Your task to perform on an android device: Go to Reddit.com Image 0: 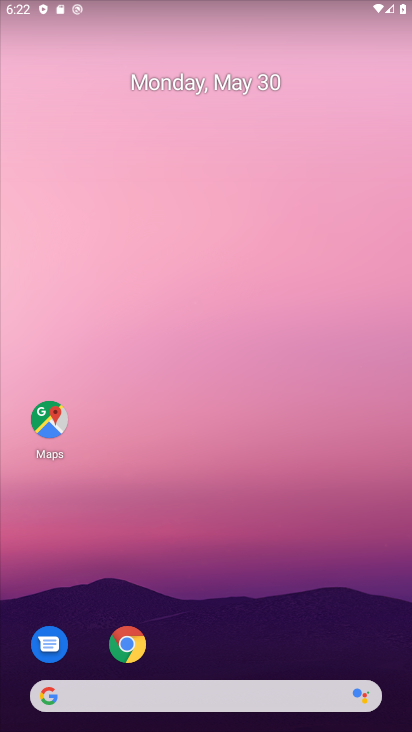
Step 0: click (123, 654)
Your task to perform on an android device: Go to Reddit.com Image 1: 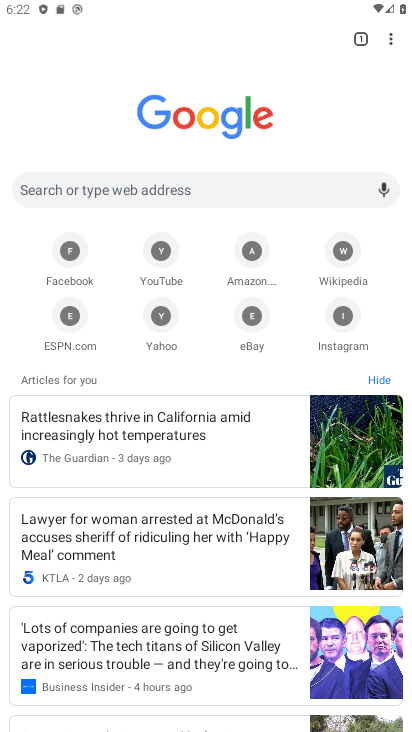
Step 1: press back button
Your task to perform on an android device: Go to Reddit.com Image 2: 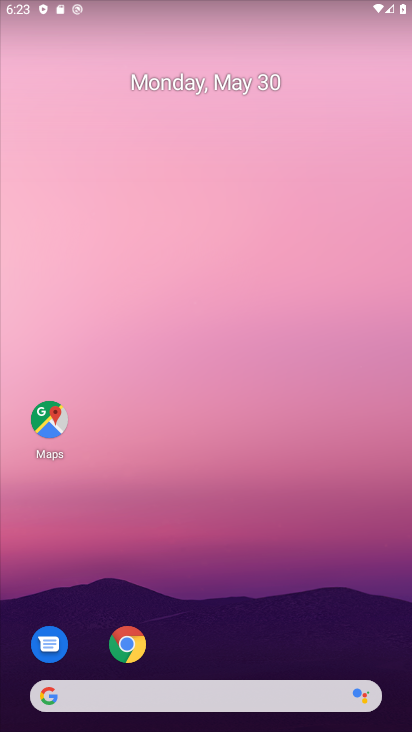
Step 2: click (122, 648)
Your task to perform on an android device: Go to Reddit.com Image 3: 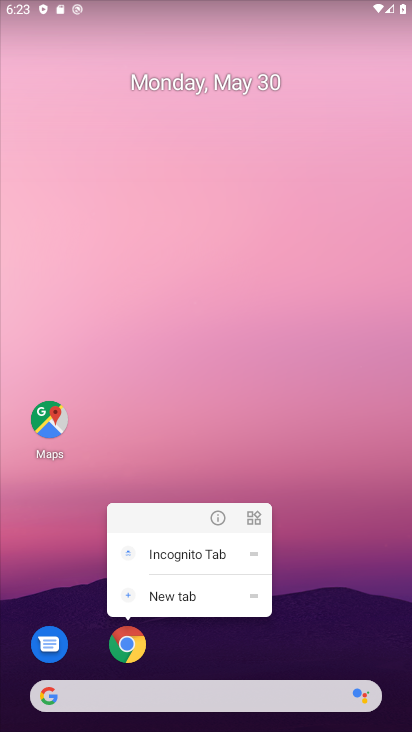
Step 3: click (122, 648)
Your task to perform on an android device: Go to Reddit.com Image 4: 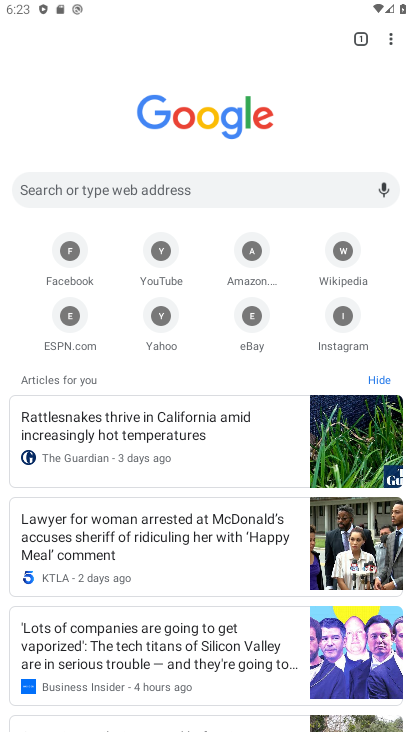
Step 4: click (168, 174)
Your task to perform on an android device: Go to Reddit.com Image 5: 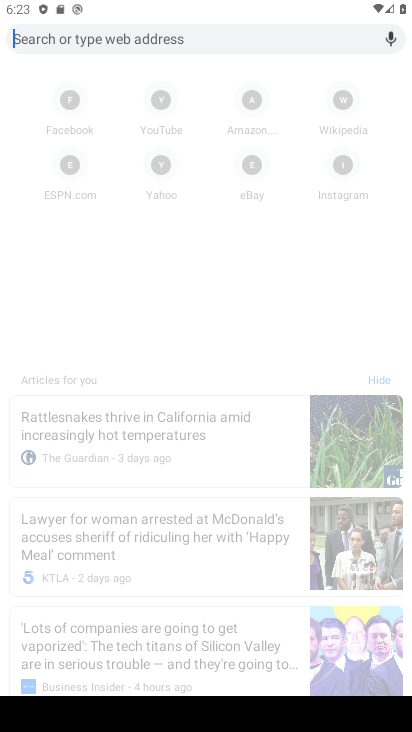
Step 5: type "www.reddit.com"
Your task to perform on an android device: Go to Reddit.com Image 6: 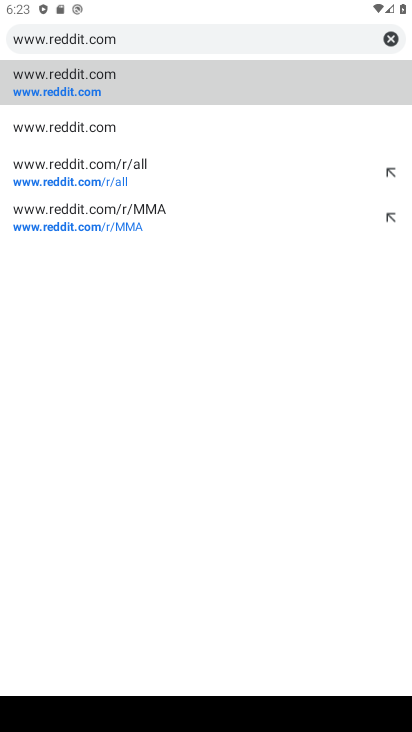
Step 6: click (78, 99)
Your task to perform on an android device: Go to Reddit.com Image 7: 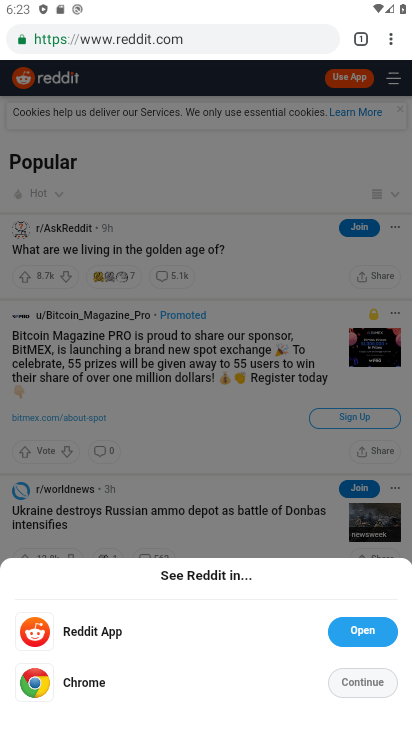
Step 7: task complete